Your task to perform on an android device: delete location history Image 0: 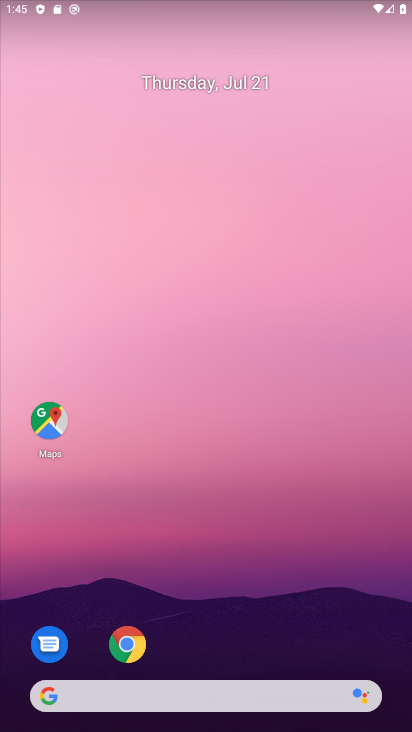
Step 0: click (50, 427)
Your task to perform on an android device: delete location history Image 1: 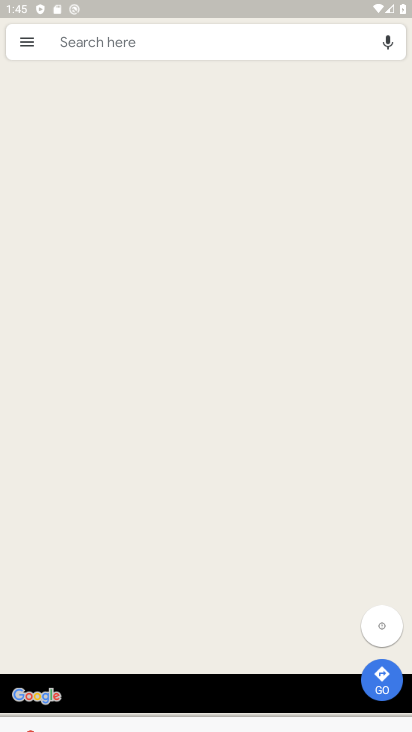
Step 1: click (19, 49)
Your task to perform on an android device: delete location history Image 2: 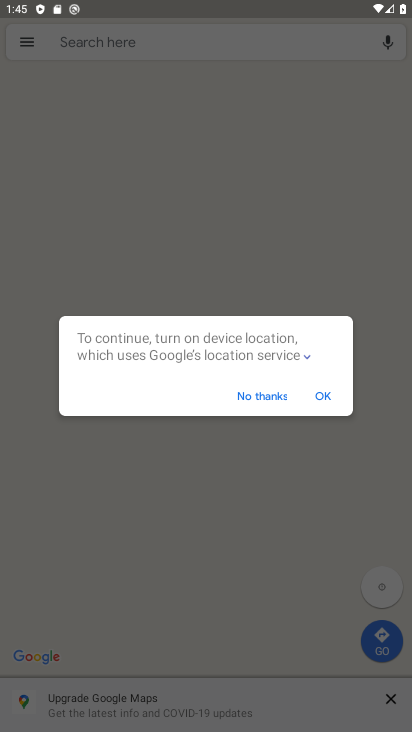
Step 2: click (330, 395)
Your task to perform on an android device: delete location history Image 3: 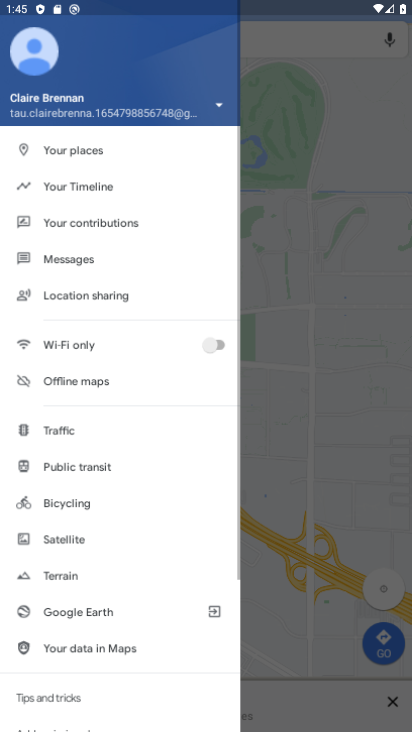
Step 3: click (27, 35)
Your task to perform on an android device: delete location history Image 4: 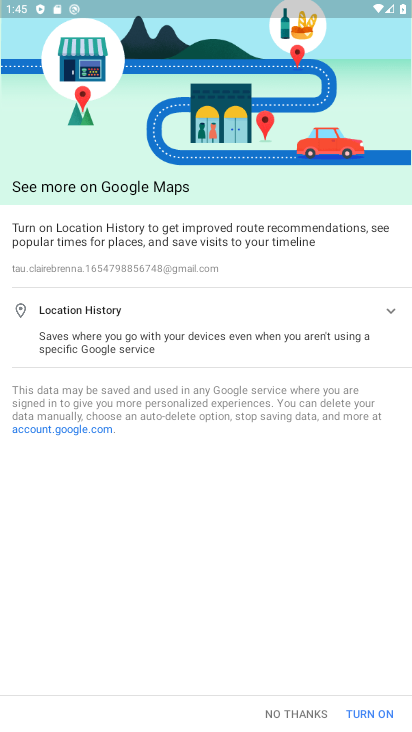
Step 4: click (283, 715)
Your task to perform on an android device: delete location history Image 5: 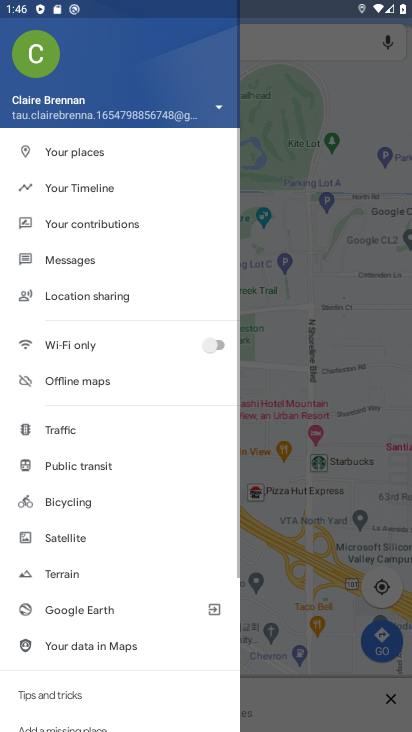
Step 5: click (68, 188)
Your task to perform on an android device: delete location history Image 6: 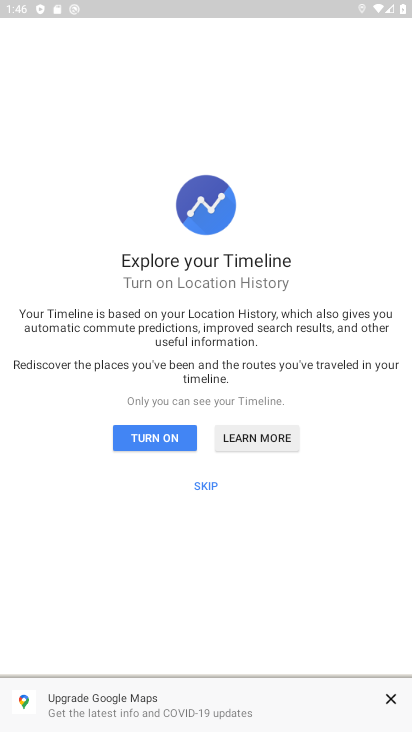
Step 6: click (206, 486)
Your task to perform on an android device: delete location history Image 7: 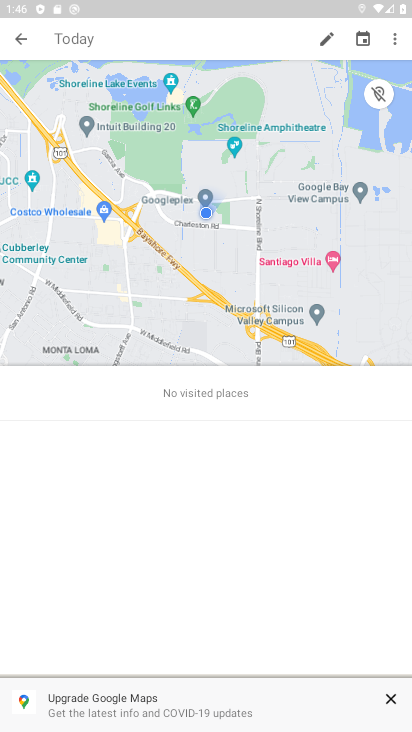
Step 7: click (399, 35)
Your task to perform on an android device: delete location history Image 8: 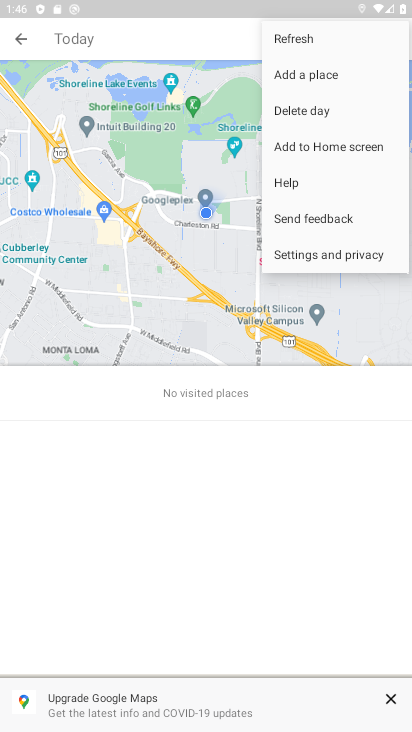
Step 8: click (328, 250)
Your task to perform on an android device: delete location history Image 9: 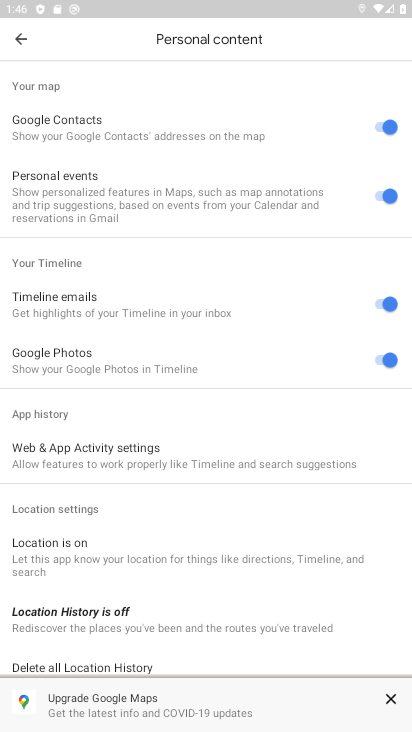
Step 9: click (165, 666)
Your task to perform on an android device: delete location history Image 10: 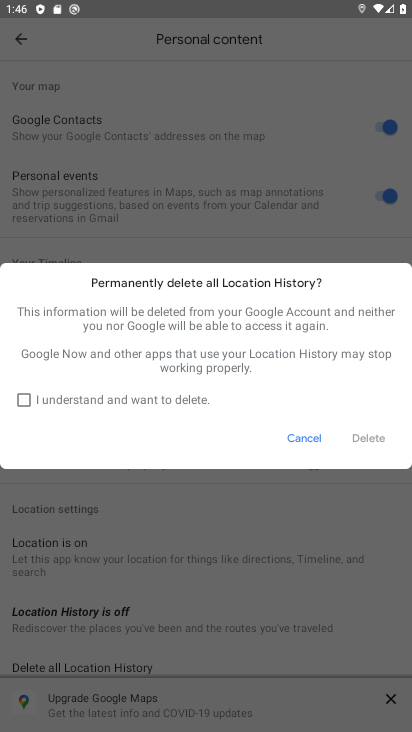
Step 10: click (20, 401)
Your task to perform on an android device: delete location history Image 11: 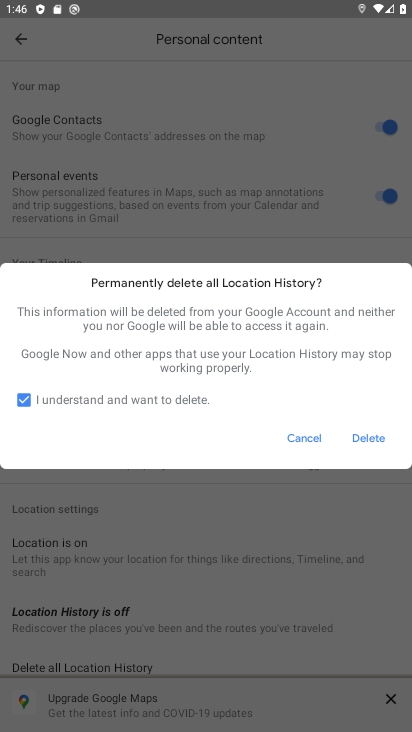
Step 11: click (370, 439)
Your task to perform on an android device: delete location history Image 12: 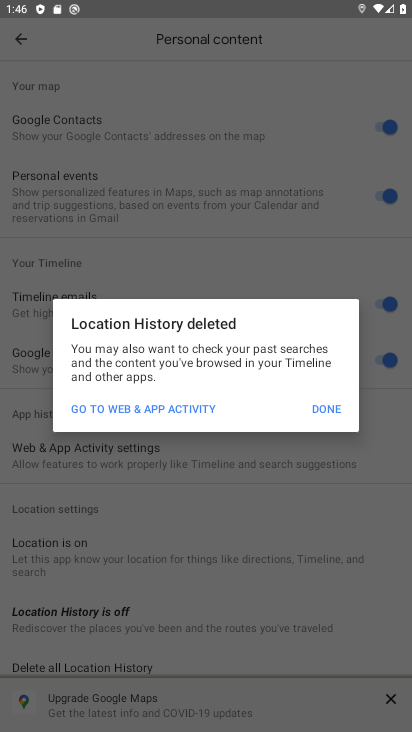
Step 12: click (331, 408)
Your task to perform on an android device: delete location history Image 13: 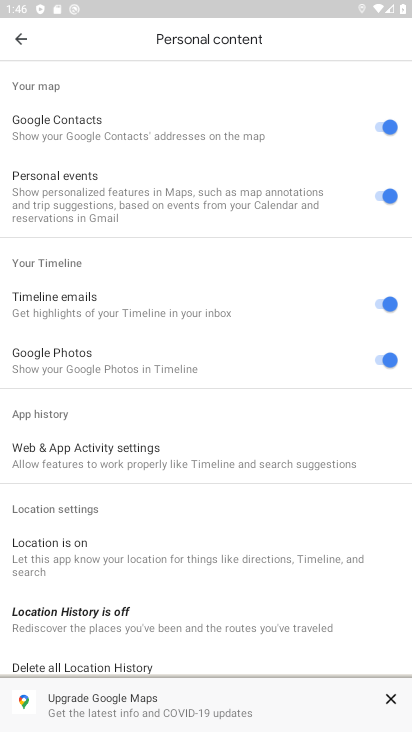
Step 13: task complete